Your task to perform on an android device: toggle wifi Image 0: 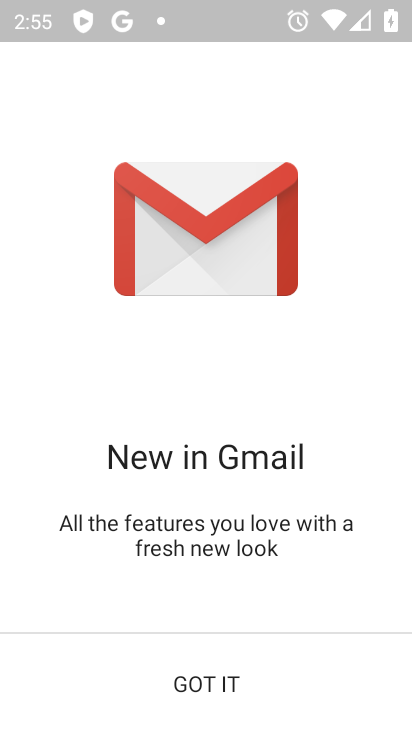
Step 0: press home button
Your task to perform on an android device: toggle wifi Image 1: 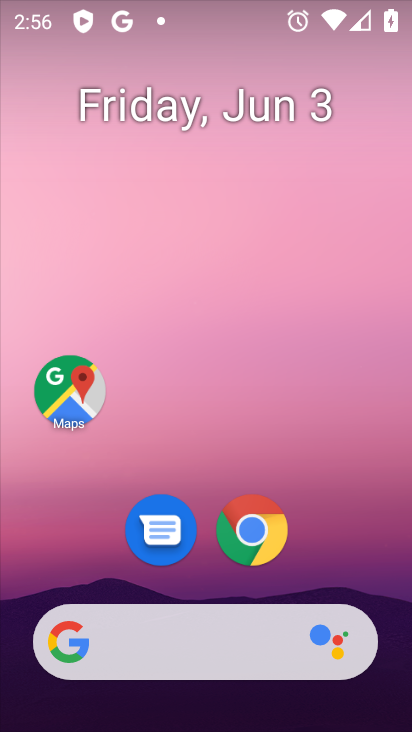
Step 1: drag from (237, 18) to (246, 550)
Your task to perform on an android device: toggle wifi Image 2: 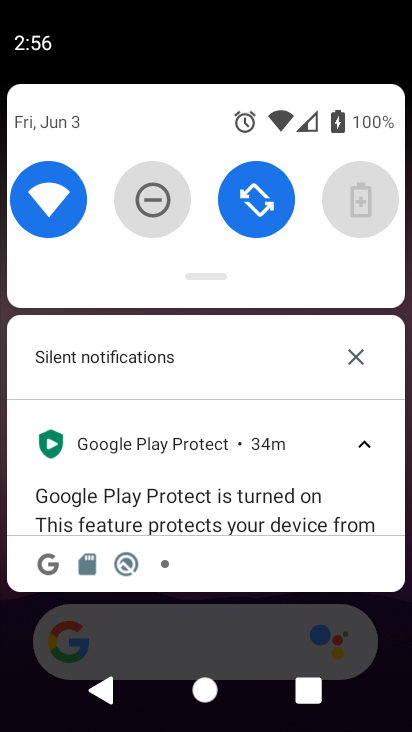
Step 2: click (47, 215)
Your task to perform on an android device: toggle wifi Image 3: 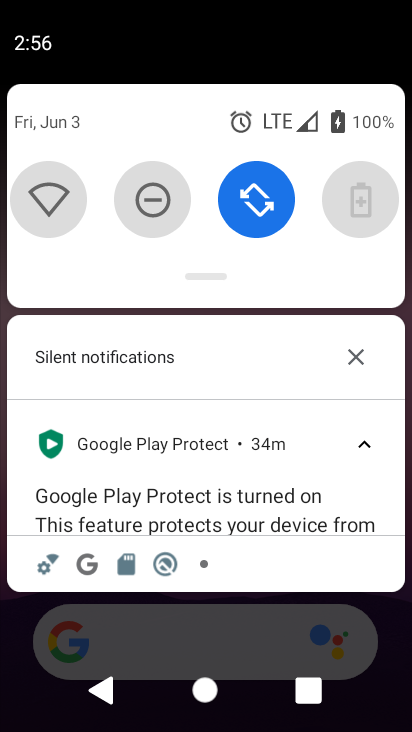
Step 3: task complete